Your task to perform on an android device: open the mobile data screen to see how much data has been used Image 0: 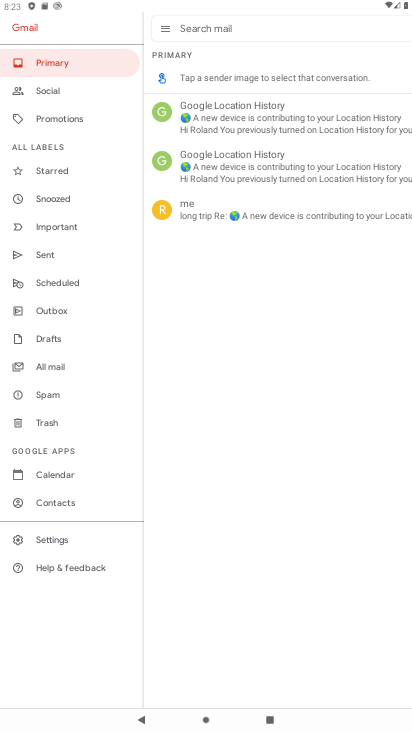
Step 0: drag from (210, 631) to (206, 36)
Your task to perform on an android device: open the mobile data screen to see how much data has been used Image 1: 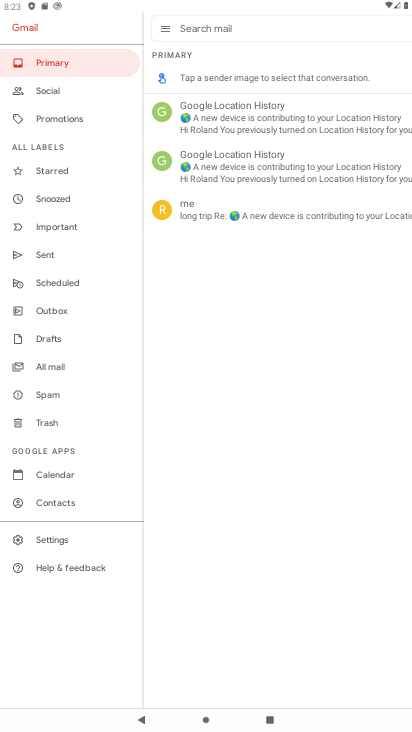
Step 1: drag from (236, 515) to (234, 281)
Your task to perform on an android device: open the mobile data screen to see how much data has been used Image 2: 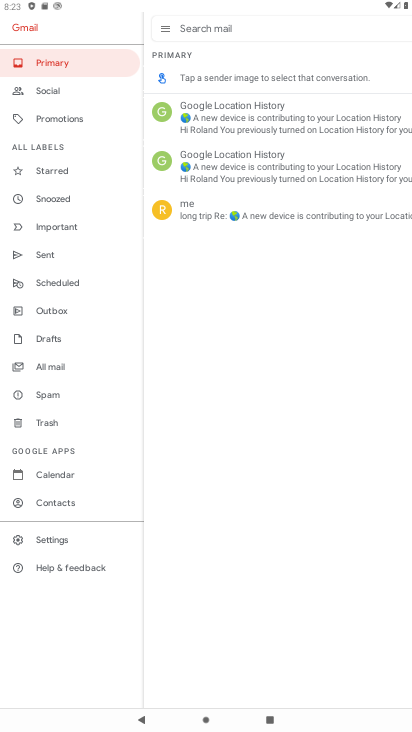
Step 2: press home button
Your task to perform on an android device: open the mobile data screen to see how much data has been used Image 3: 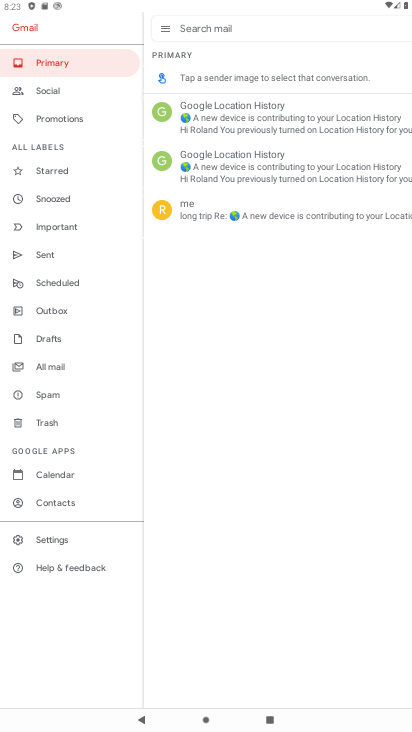
Step 3: press home button
Your task to perform on an android device: open the mobile data screen to see how much data has been used Image 4: 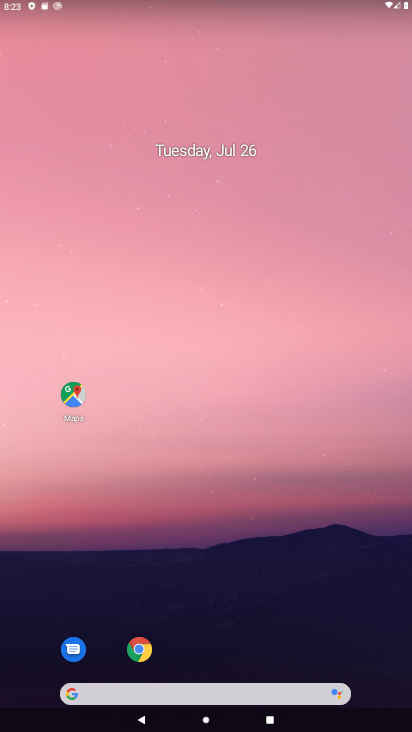
Step 4: drag from (194, 644) to (144, 1)
Your task to perform on an android device: open the mobile data screen to see how much data has been used Image 5: 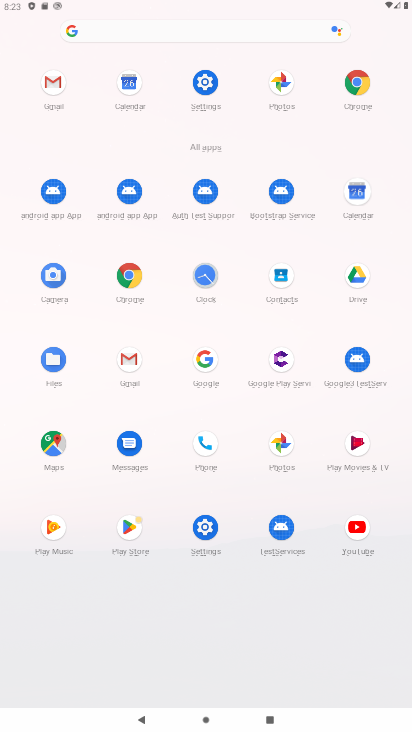
Step 5: click (205, 82)
Your task to perform on an android device: open the mobile data screen to see how much data has been used Image 6: 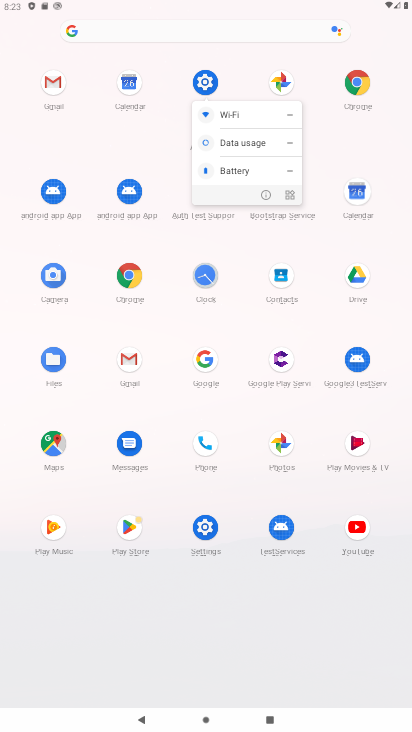
Step 6: click (260, 188)
Your task to perform on an android device: open the mobile data screen to see how much data has been used Image 7: 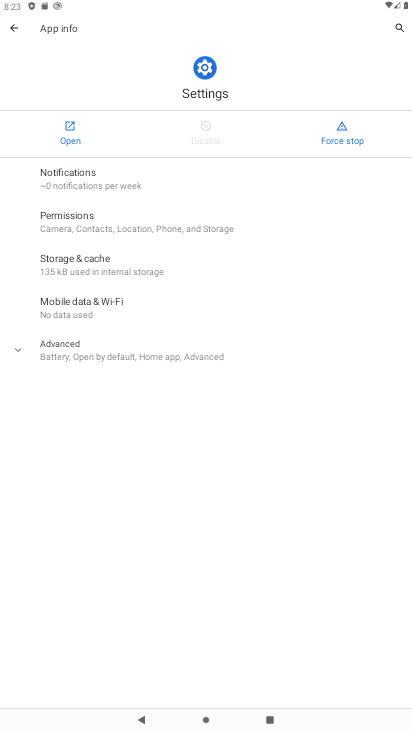
Step 7: click (70, 122)
Your task to perform on an android device: open the mobile data screen to see how much data has been used Image 8: 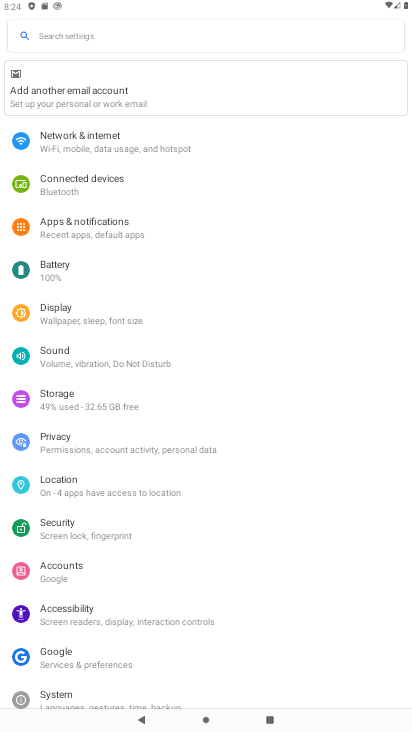
Step 8: click (117, 153)
Your task to perform on an android device: open the mobile data screen to see how much data has been used Image 9: 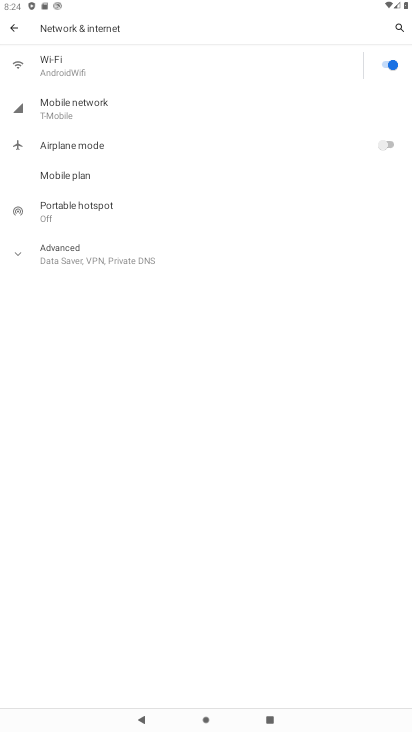
Step 9: click (118, 110)
Your task to perform on an android device: open the mobile data screen to see how much data has been used Image 10: 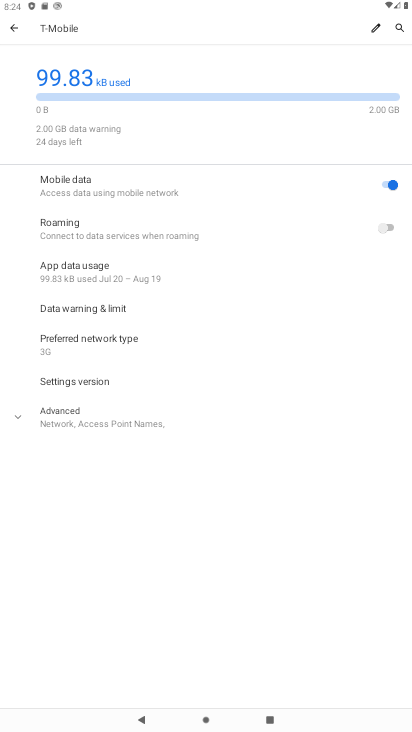
Step 10: task complete